Your task to perform on an android device: Open wifi settings Image 0: 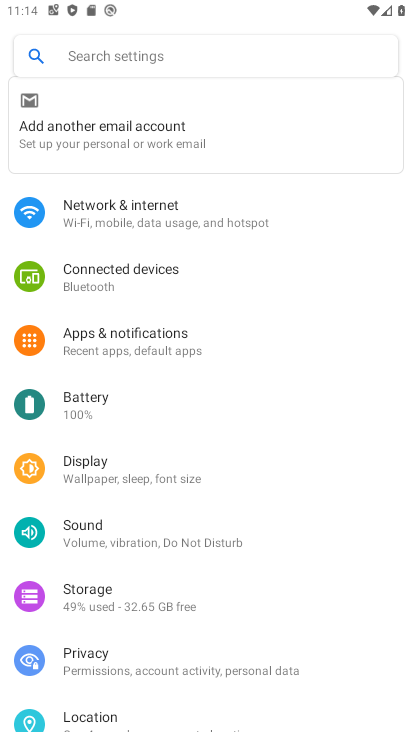
Step 0: press home button
Your task to perform on an android device: Open wifi settings Image 1: 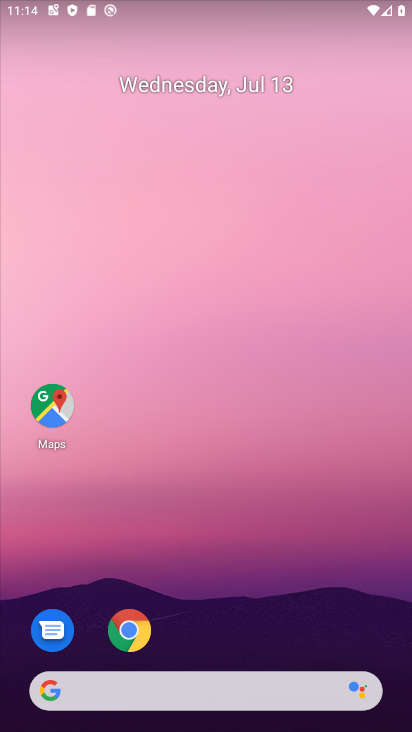
Step 1: drag from (317, 587) to (353, 281)
Your task to perform on an android device: Open wifi settings Image 2: 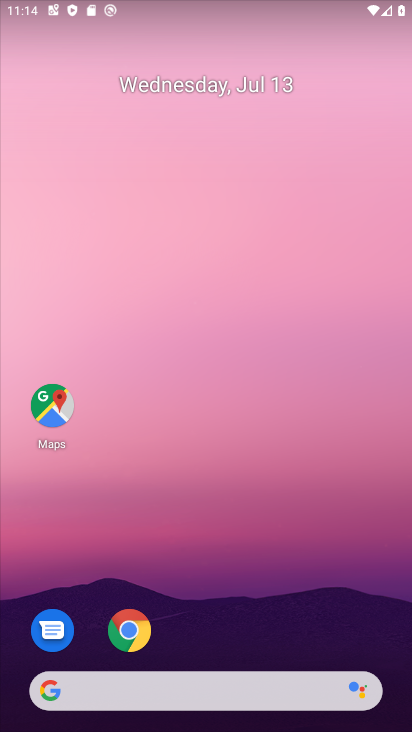
Step 2: drag from (346, 611) to (378, 164)
Your task to perform on an android device: Open wifi settings Image 3: 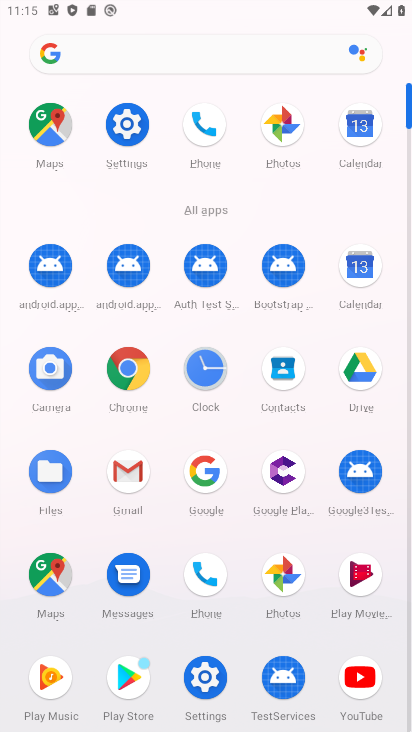
Step 3: click (129, 142)
Your task to perform on an android device: Open wifi settings Image 4: 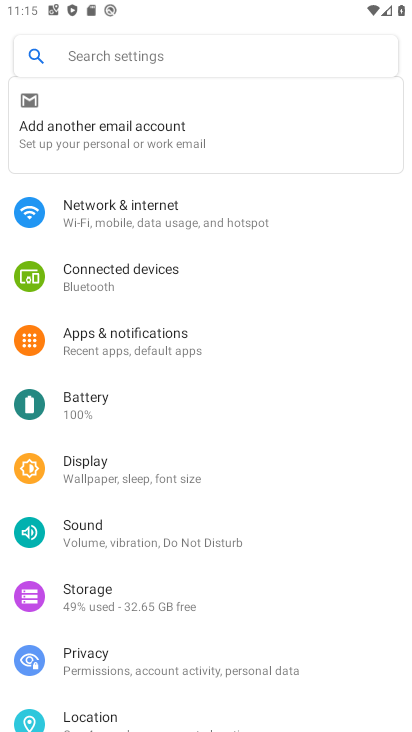
Step 4: drag from (342, 516) to (354, 217)
Your task to perform on an android device: Open wifi settings Image 5: 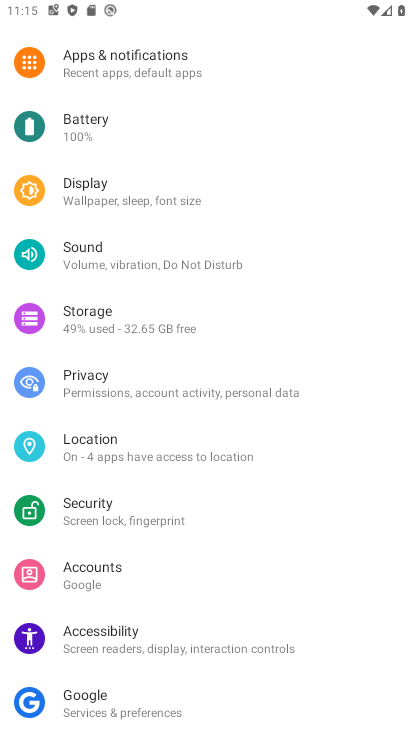
Step 5: drag from (337, 532) to (343, 300)
Your task to perform on an android device: Open wifi settings Image 6: 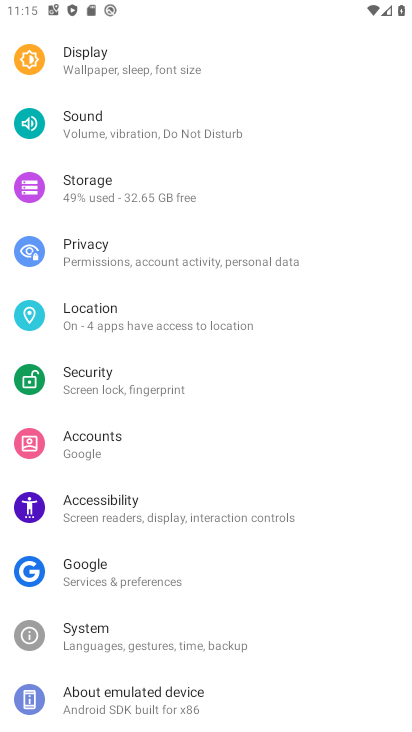
Step 6: drag from (345, 315) to (347, 470)
Your task to perform on an android device: Open wifi settings Image 7: 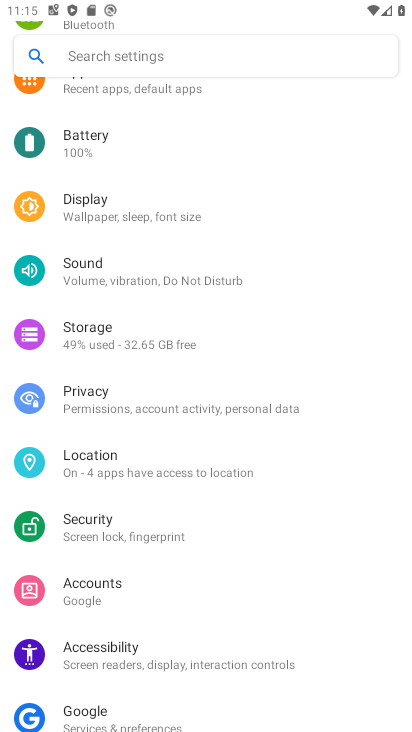
Step 7: drag from (343, 314) to (346, 498)
Your task to perform on an android device: Open wifi settings Image 8: 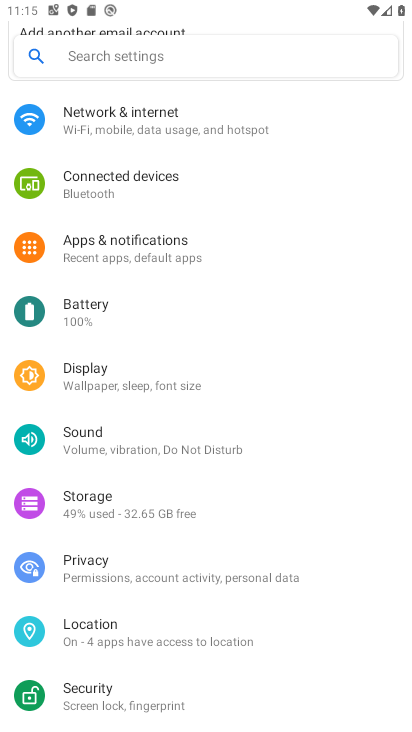
Step 8: drag from (347, 296) to (360, 437)
Your task to perform on an android device: Open wifi settings Image 9: 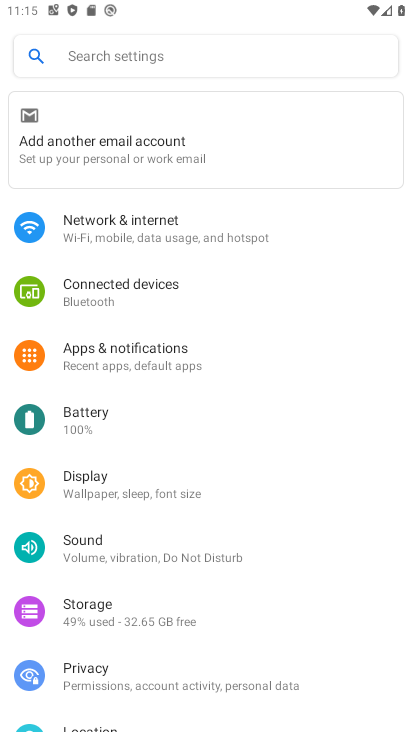
Step 9: click (241, 233)
Your task to perform on an android device: Open wifi settings Image 10: 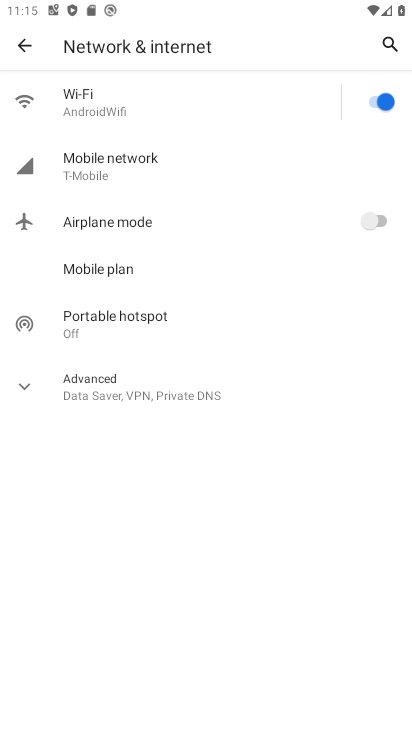
Step 10: click (116, 101)
Your task to perform on an android device: Open wifi settings Image 11: 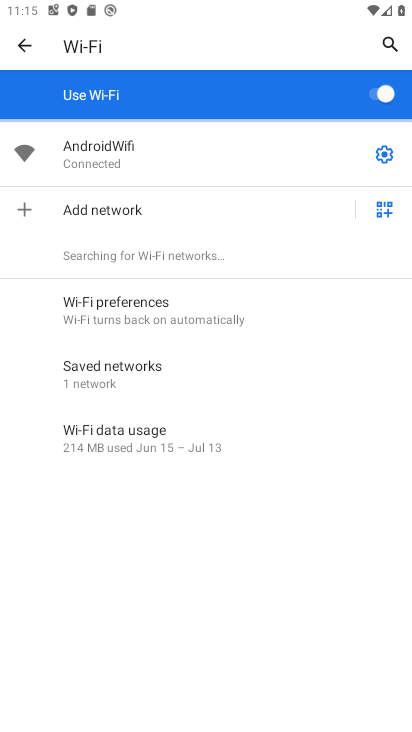
Step 11: task complete